Your task to perform on an android device: set the timer Image 0: 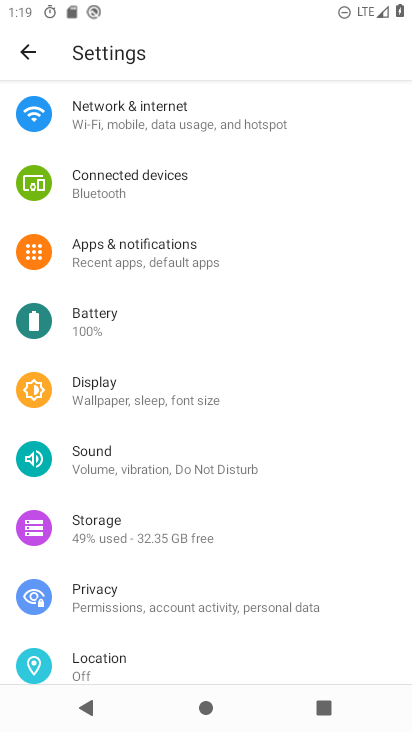
Step 0: press home button
Your task to perform on an android device: set the timer Image 1: 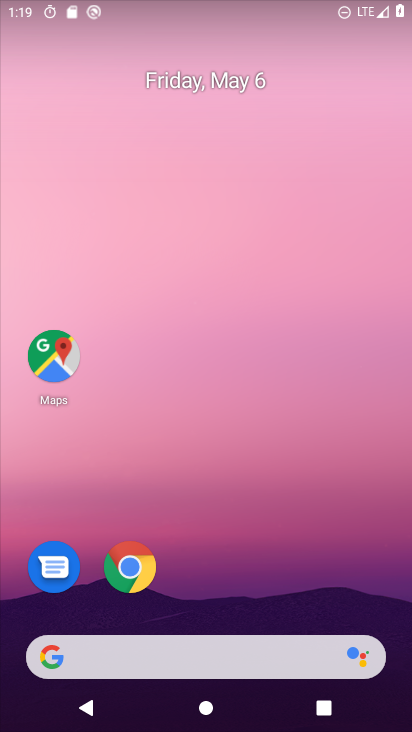
Step 1: drag from (298, 585) to (316, 12)
Your task to perform on an android device: set the timer Image 2: 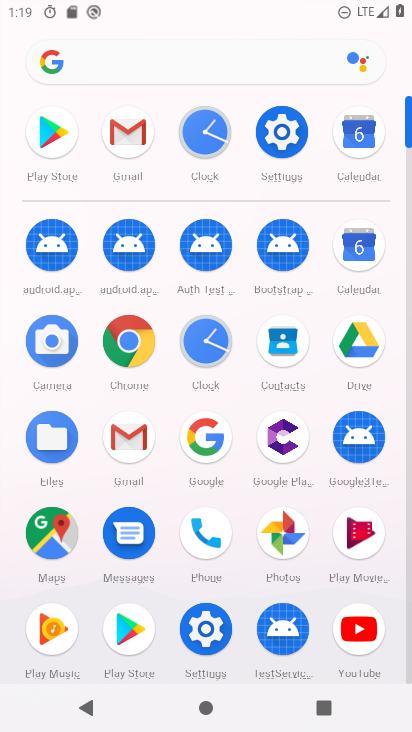
Step 2: click (195, 144)
Your task to perform on an android device: set the timer Image 3: 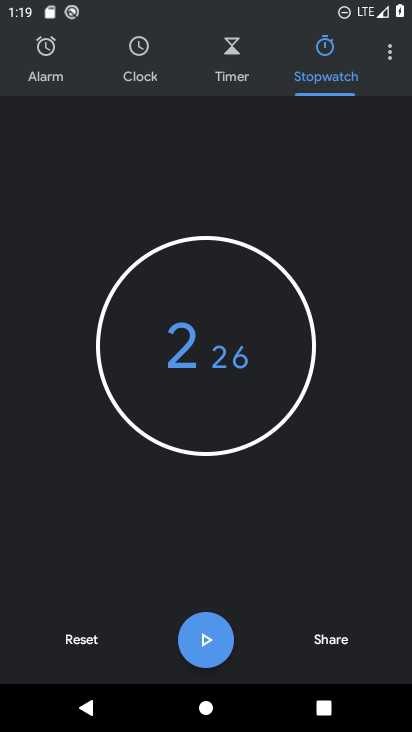
Step 3: click (227, 73)
Your task to perform on an android device: set the timer Image 4: 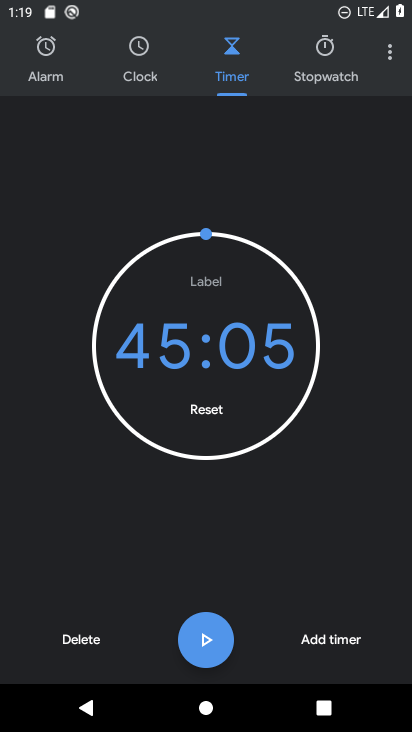
Step 4: click (320, 641)
Your task to perform on an android device: set the timer Image 5: 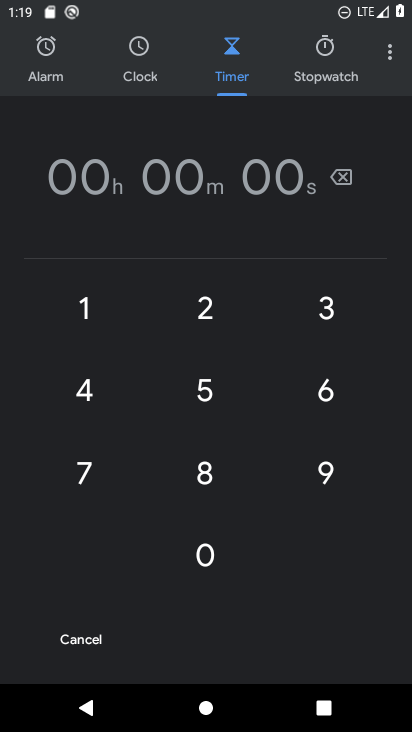
Step 5: click (199, 310)
Your task to perform on an android device: set the timer Image 6: 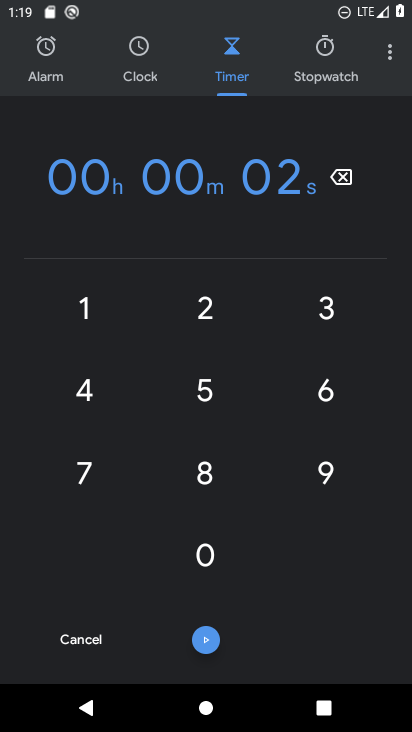
Step 6: click (204, 555)
Your task to perform on an android device: set the timer Image 7: 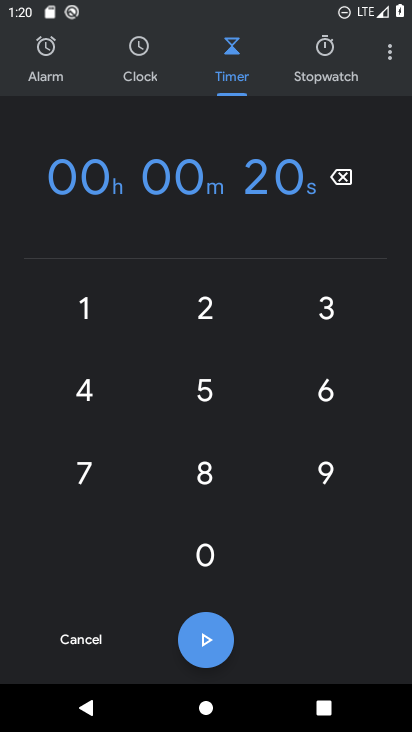
Step 7: click (206, 634)
Your task to perform on an android device: set the timer Image 8: 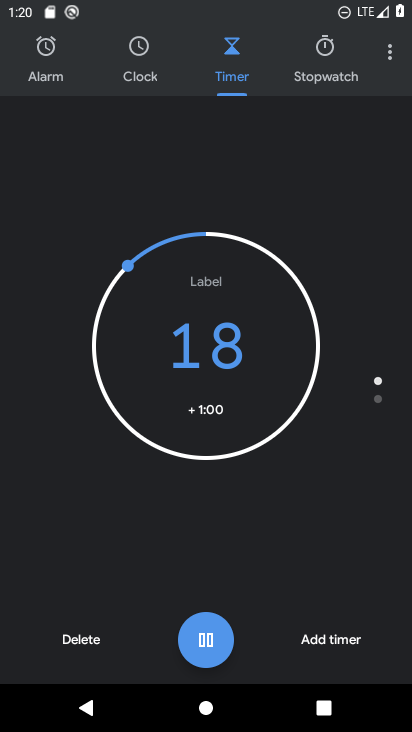
Step 8: task complete